Your task to perform on an android device: Open network settings Image 0: 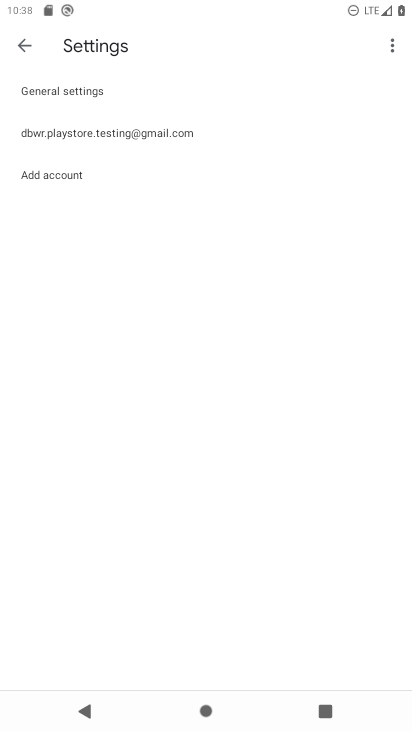
Step 0: press home button
Your task to perform on an android device: Open network settings Image 1: 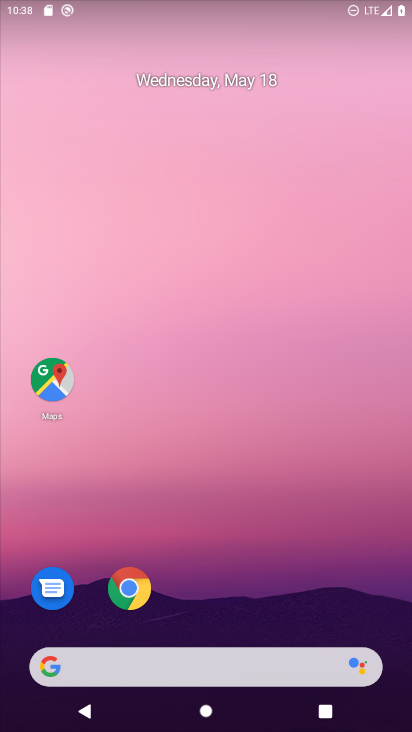
Step 1: drag from (294, 575) to (352, 7)
Your task to perform on an android device: Open network settings Image 2: 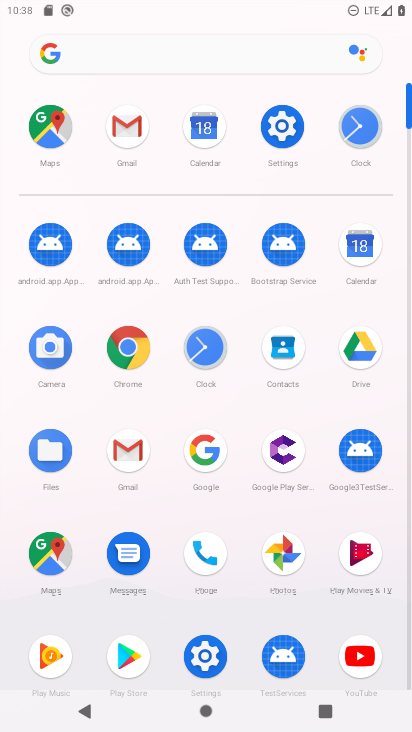
Step 2: click (283, 130)
Your task to perform on an android device: Open network settings Image 3: 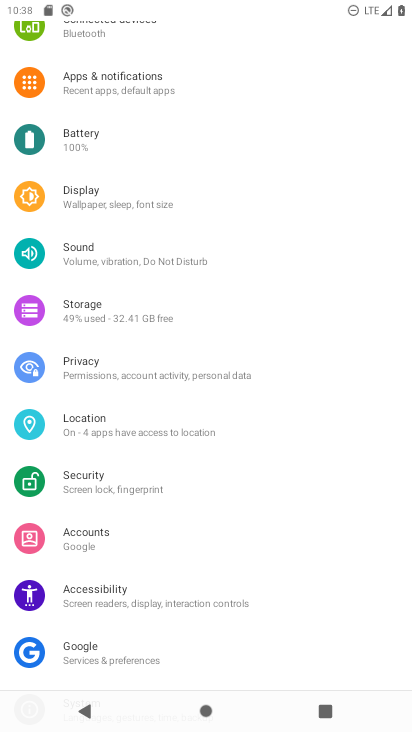
Step 3: drag from (276, 107) to (295, 308)
Your task to perform on an android device: Open network settings Image 4: 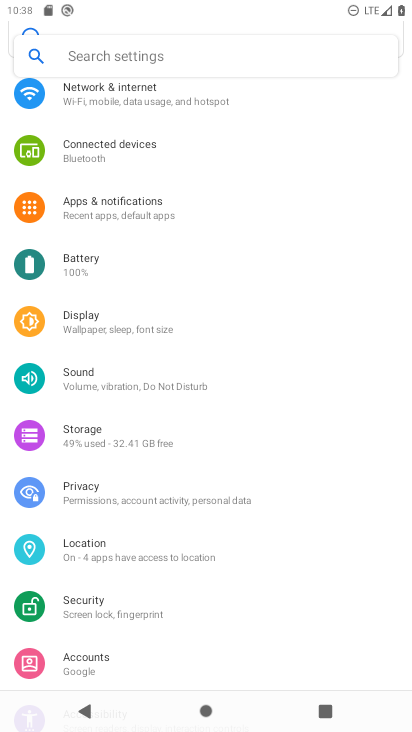
Step 4: click (121, 98)
Your task to perform on an android device: Open network settings Image 5: 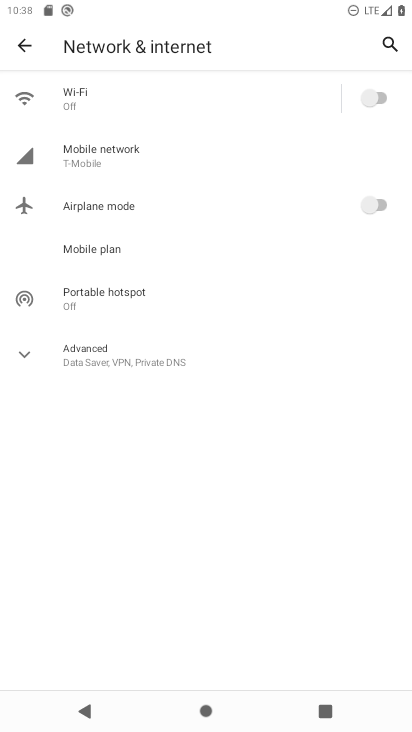
Step 5: click (85, 149)
Your task to perform on an android device: Open network settings Image 6: 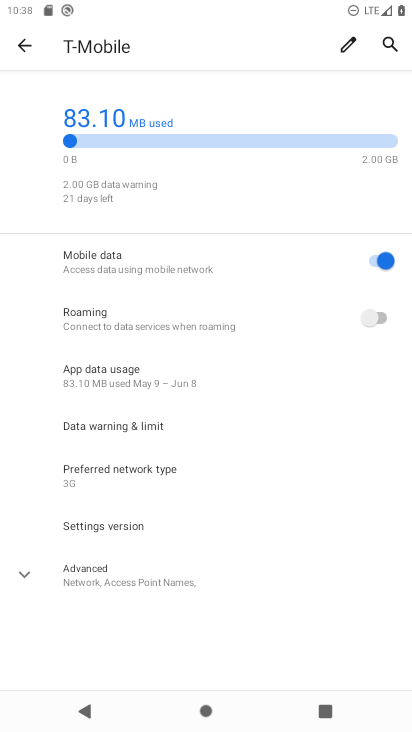
Step 6: drag from (123, 527) to (174, 259)
Your task to perform on an android device: Open network settings Image 7: 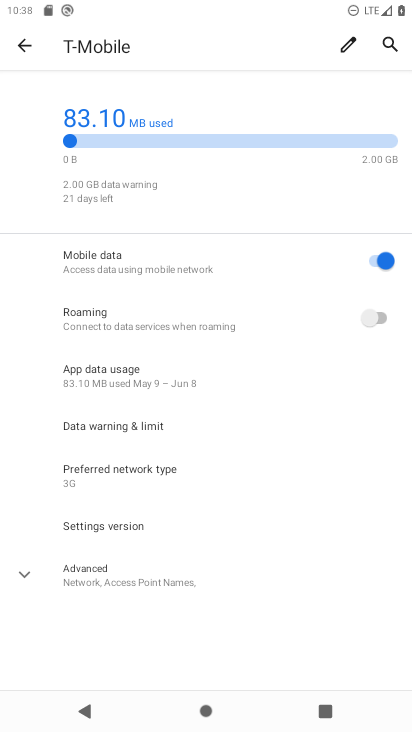
Step 7: click (21, 577)
Your task to perform on an android device: Open network settings Image 8: 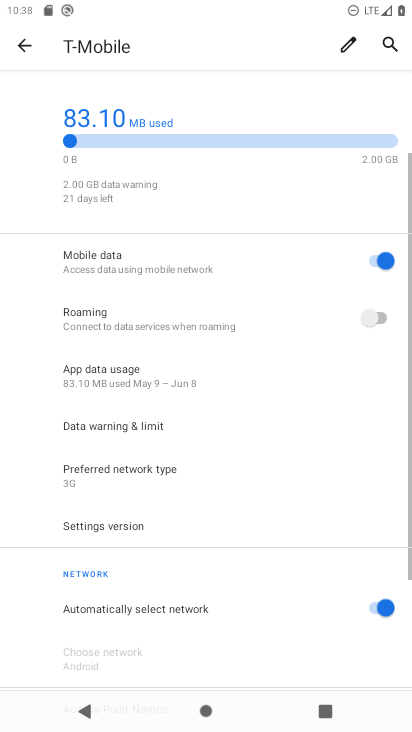
Step 8: task complete